Your task to perform on an android device: Show me recent news Image 0: 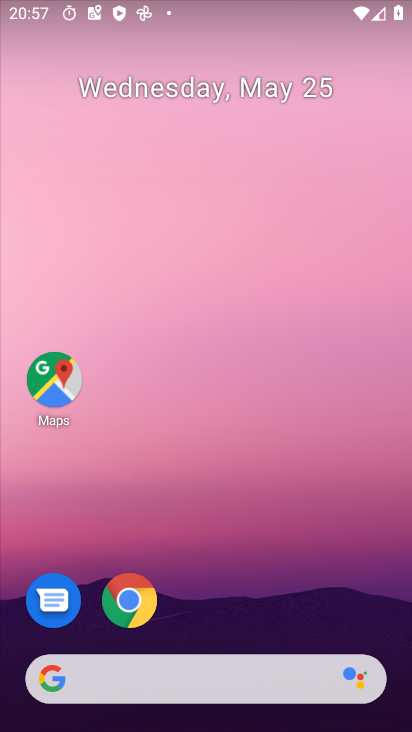
Step 0: drag from (368, 608) to (367, 147)
Your task to perform on an android device: Show me recent news Image 1: 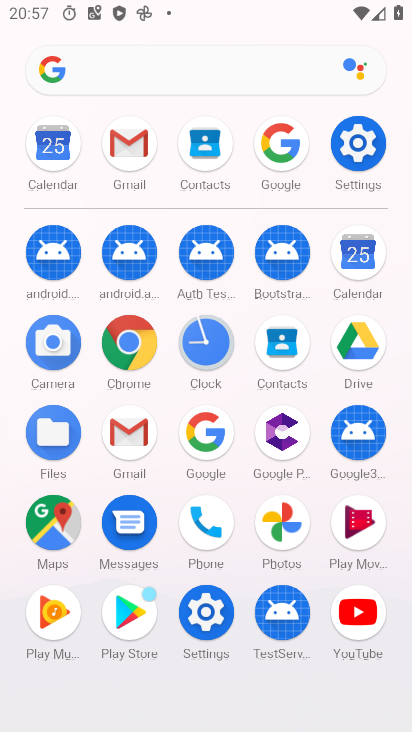
Step 1: click (130, 357)
Your task to perform on an android device: Show me recent news Image 2: 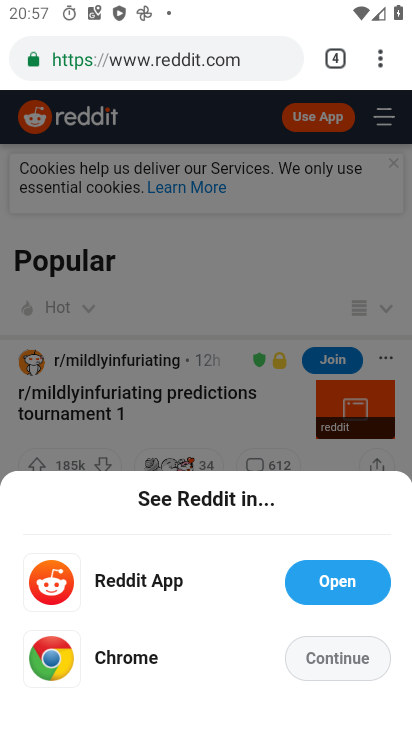
Step 2: click (221, 58)
Your task to perform on an android device: Show me recent news Image 3: 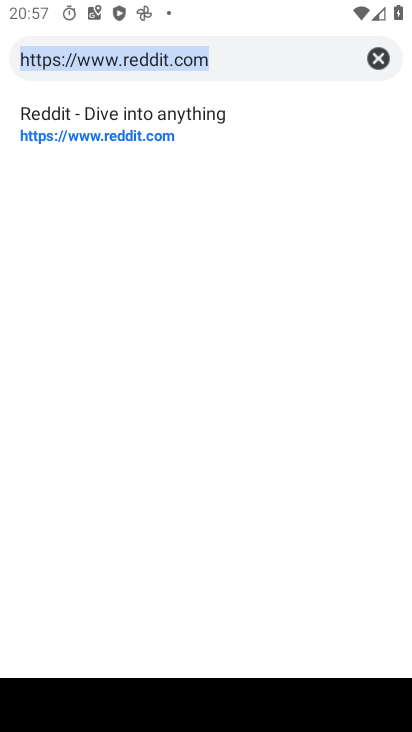
Step 3: click (375, 65)
Your task to perform on an android device: Show me recent news Image 4: 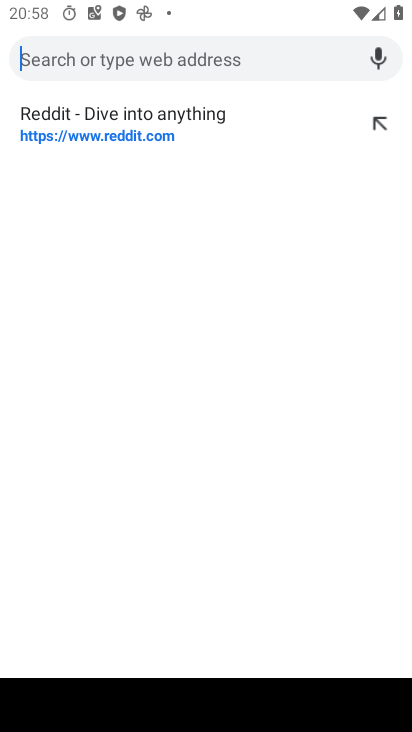
Step 4: type "recent news"
Your task to perform on an android device: Show me recent news Image 5: 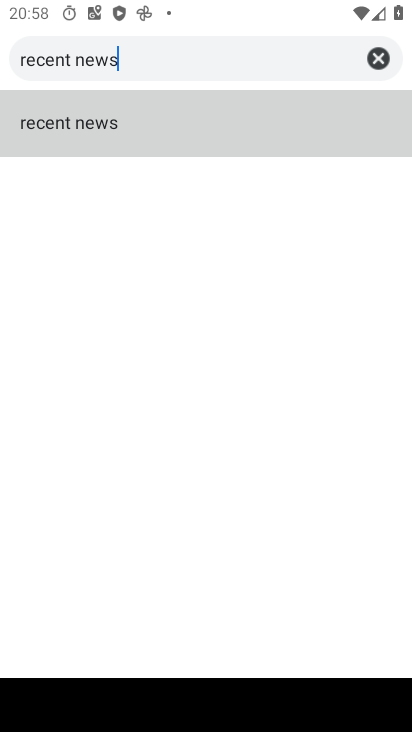
Step 5: click (211, 123)
Your task to perform on an android device: Show me recent news Image 6: 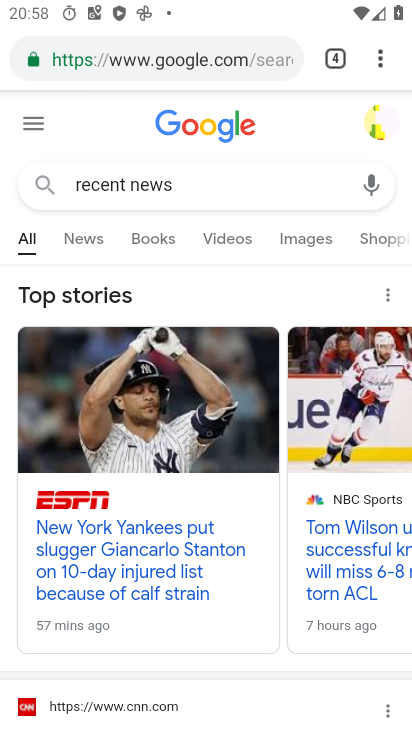
Step 6: task complete